Your task to perform on an android device: toggle notifications settings in the gmail app Image 0: 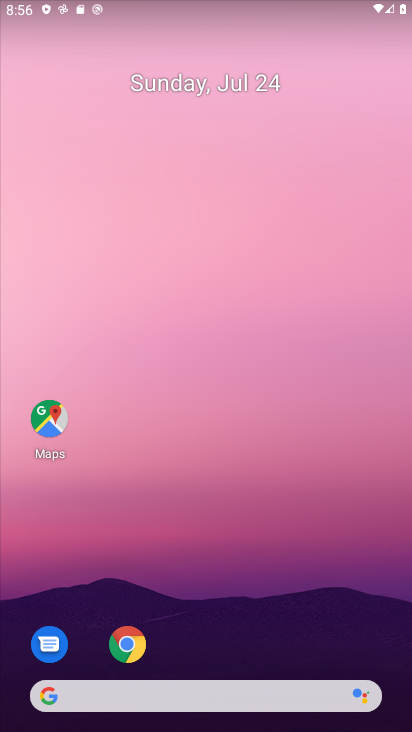
Step 0: drag from (240, 636) to (185, 178)
Your task to perform on an android device: toggle notifications settings in the gmail app Image 1: 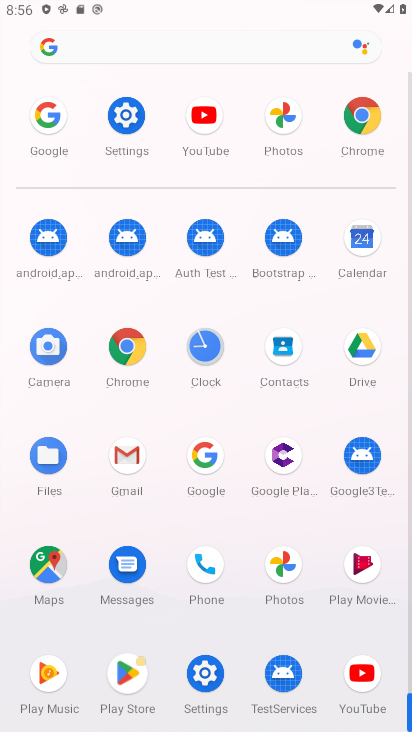
Step 1: click (122, 454)
Your task to perform on an android device: toggle notifications settings in the gmail app Image 2: 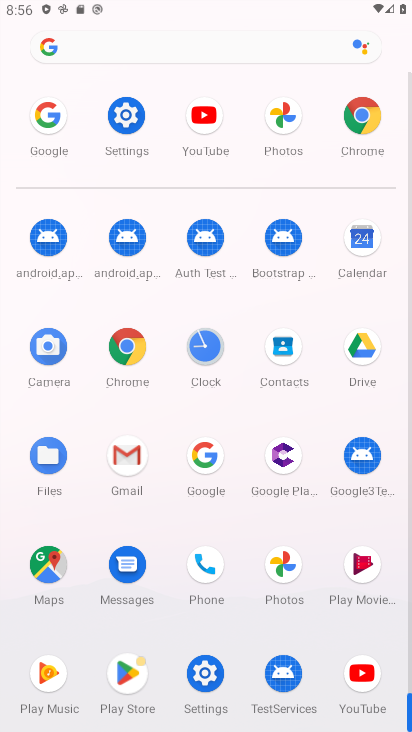
Step 2: click (121, 456)
Your task to perform on an android device: toggle notifications settings in the gmail app Image 3: 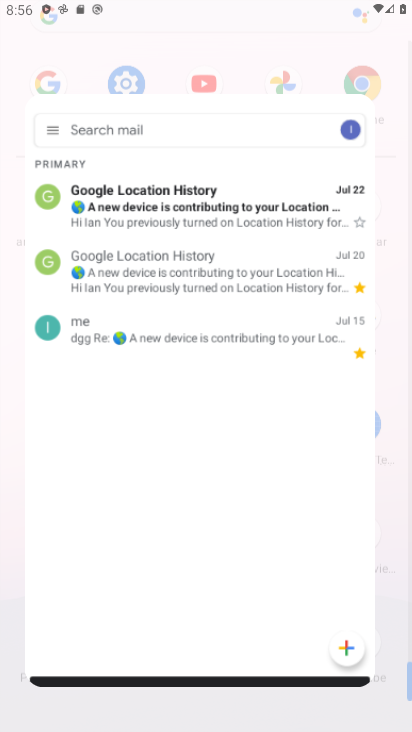
Step 3: click (122, 465)
Your task to perform on an android device: toggle notifications settings in the gmail app Image 4: 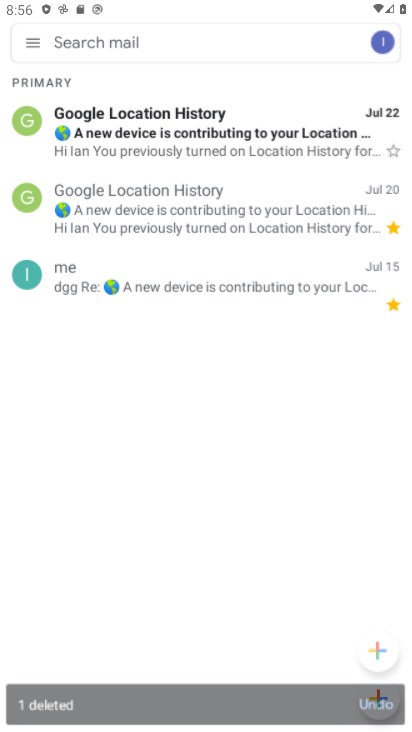
Step 4: click (114, 471)
Your task to perform on an android device: toggle notifications settings in the gmail app Image 5: 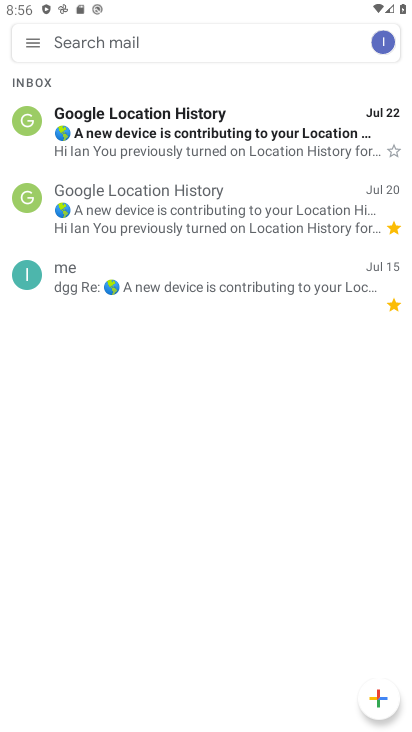
Step 5: click (35, 45)
Your task to perform on an android device: toggle notifications settings in the gmail app Image 6: 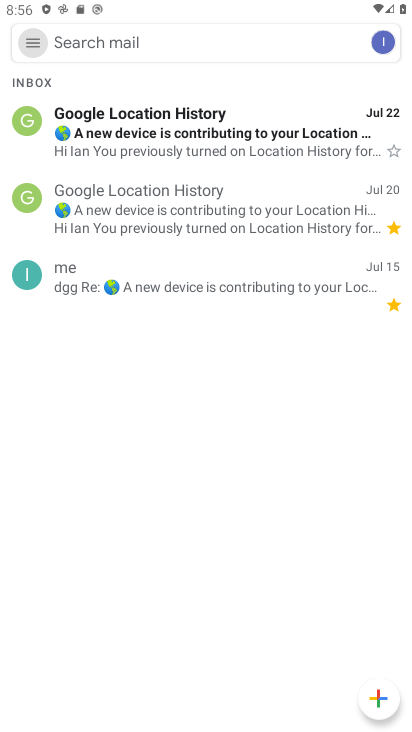
Step 6: click (35, 45)
Your task to perform on an android device: toggle notifications settings in the gmail app Image 7: 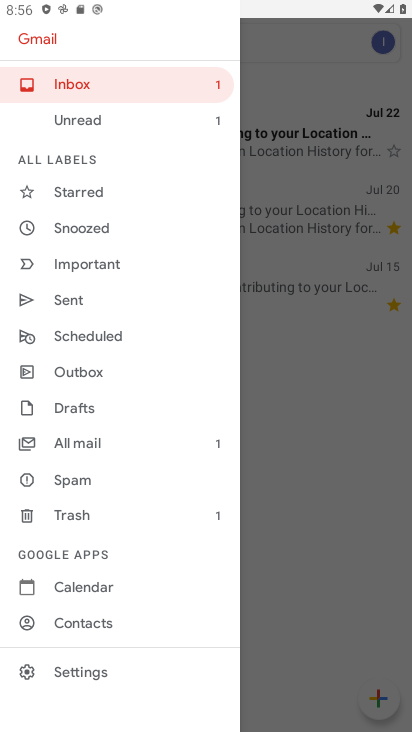
Step 7: click (82, 667)
Your task to perform on an android device: toggle notifications settings in the gmail app Image 8: 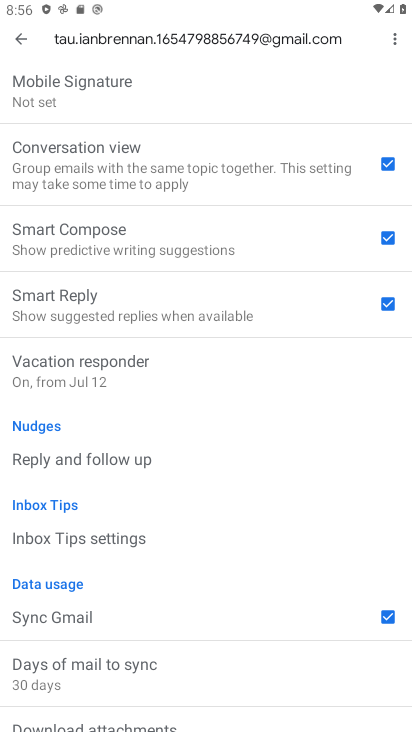
Step 8: drag from (119, 310) to (84, 674)
Your task to perform on an android device: toggle notifications settings in the gmail app Image 9: 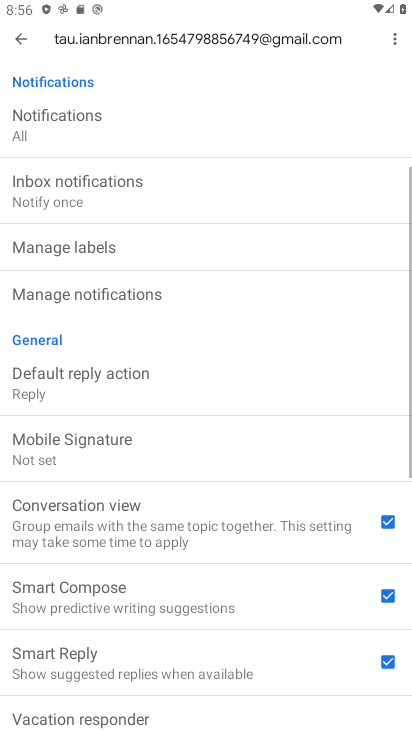
Step 9: drag from (102, 357) to (123, 695)
Your task to perform on an android device: toggle notifications settings in the gmail app Image 10: 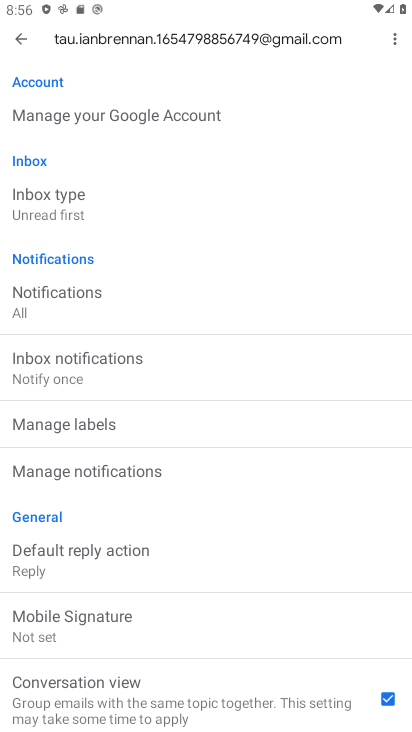
Step 10: click (78, 371)
Your task to perform on an android device: toggle notifications settings in the gmail app Image 11: 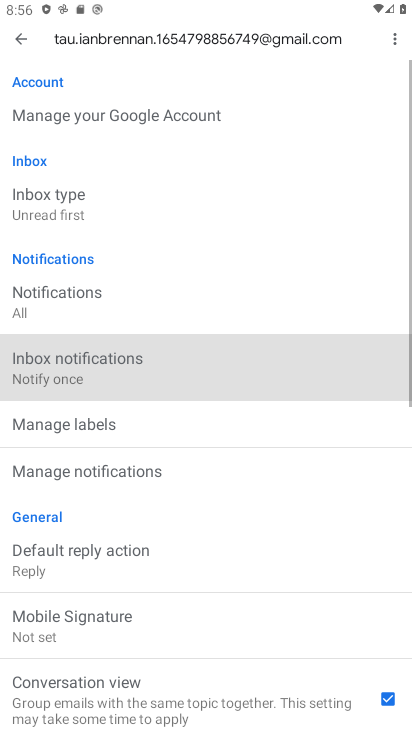
Step 11: click (81, 373)
Your task to perform on an android device: toggle notifications settings in the gmail app Image 12: 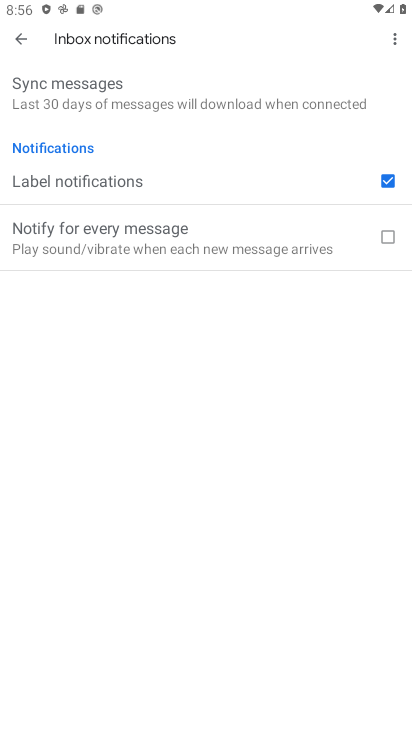
Step 12: click (18, 32)
Your task to perform on an android device: toggle notifications settings in the gmail app Image 13: 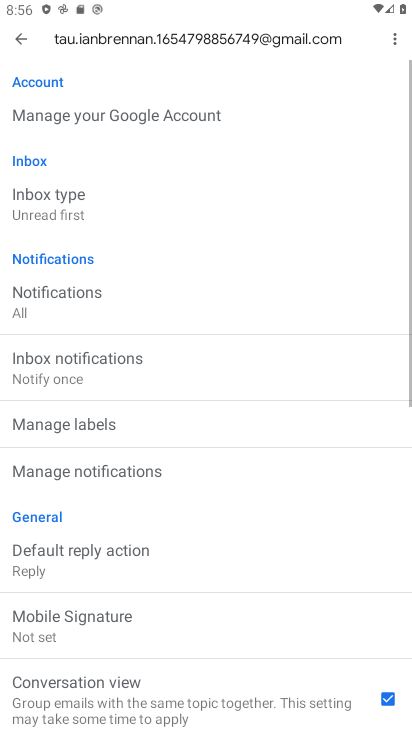
Step 13: click (54, 302)
Your task to perform on an android device: toggle notifications settings in the gmail app Image 14: 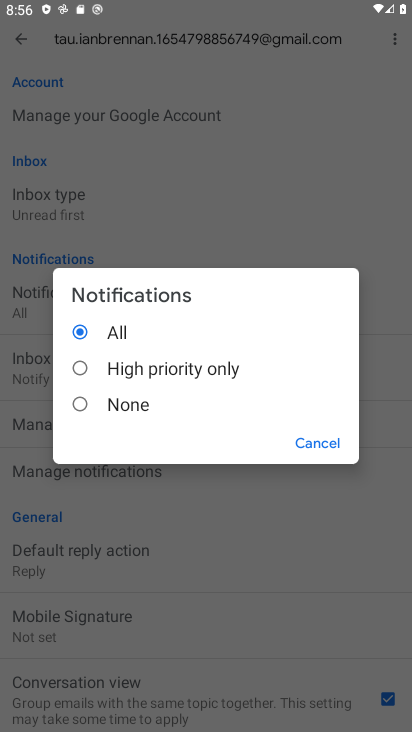
Step 14: click (90, 360)
Your task to perform on an android device: toggle notifications settings in the gmail app Image 15: 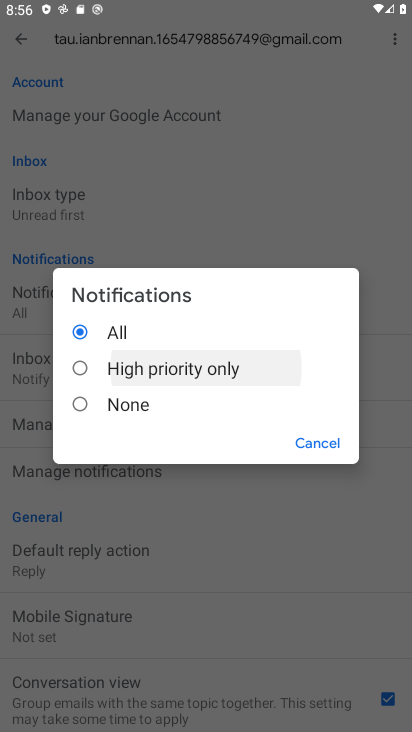
Step 15: click (86, 358)
Your task to perform on an android device: toggle notifications settings in the gmail app Image 16: 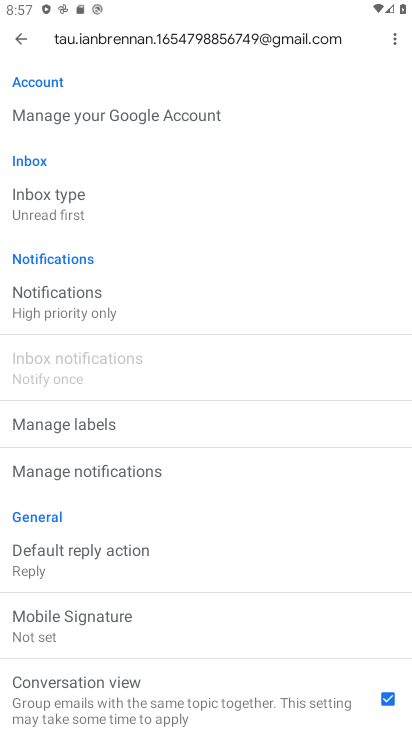
Step 16: task complete